Your task to perform on an android device: turn pop-ups on in chrome Image 0: 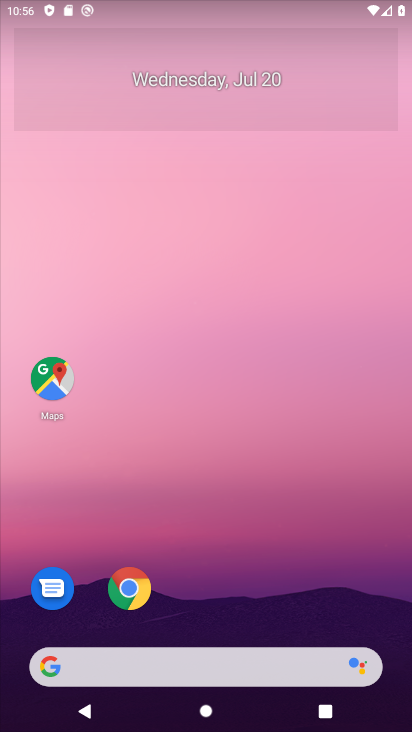
Step 0: drag from (219, 613) to (405, 610)
Your task to perform on an android device: turn pop-ups on in chrome Image 1: 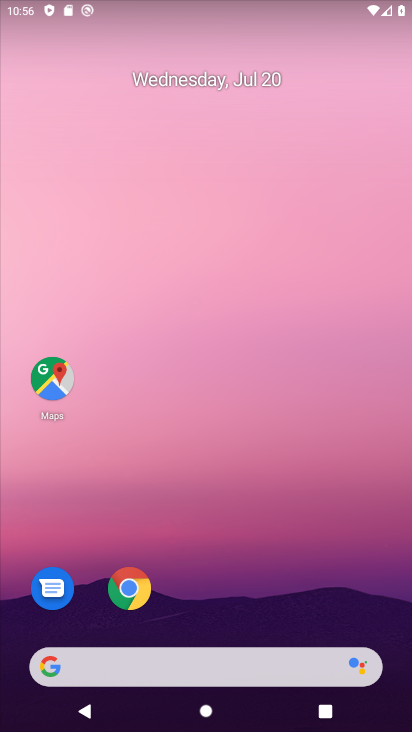
Step 1: drag from (246, 643) to (248, 88)
Your task to perform on an android device: turn pop-ups on in chrome Image 2: 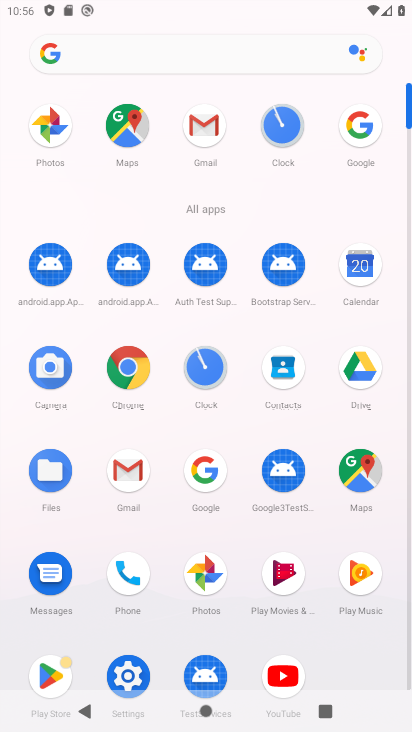
Step 2: click (129, 368)
Your task to perform on an android device: turn pop-ups on in chrome Image 3: 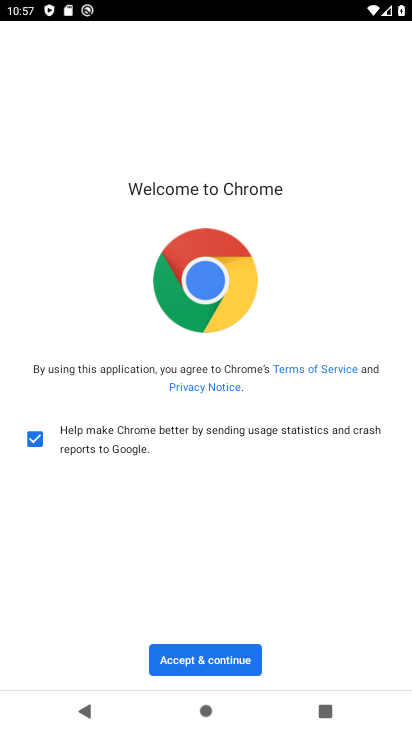
Step 3: click (183, 662)
Your task to perform on an android device: turn pop-ups on in chrome Image 4: 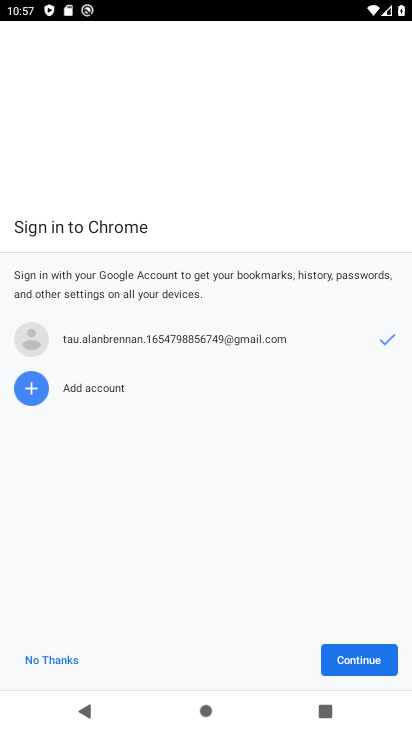
Step 4: click (30, 654)
Your task to perform on an android device: turn pop-ups on in chrome Image 5: 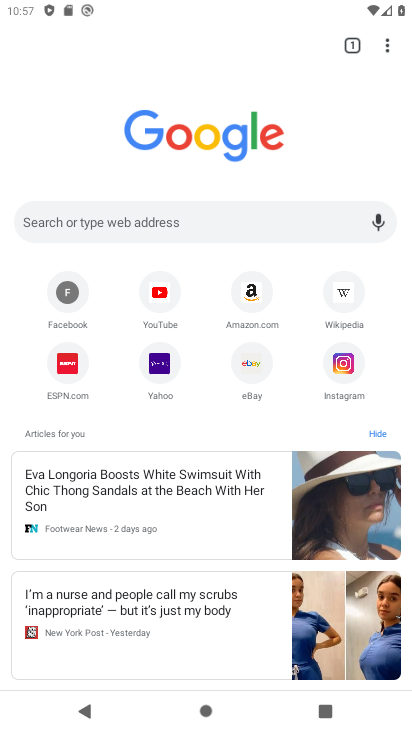
Step 5: drag from (392, 50) to (212, 390)
Your task to perform on an android device: turn pop-ups on in chrome Image 6: 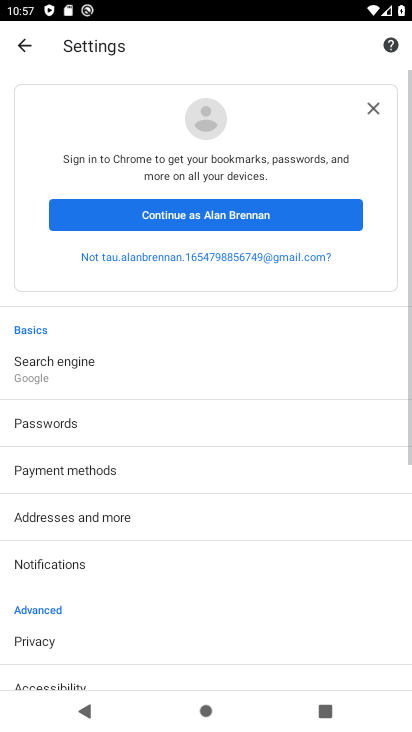
Step 6: drag from (91, 625) to (102, 330)
Your task to perform on an android device: turn pop-ups on in chrome Image 7: 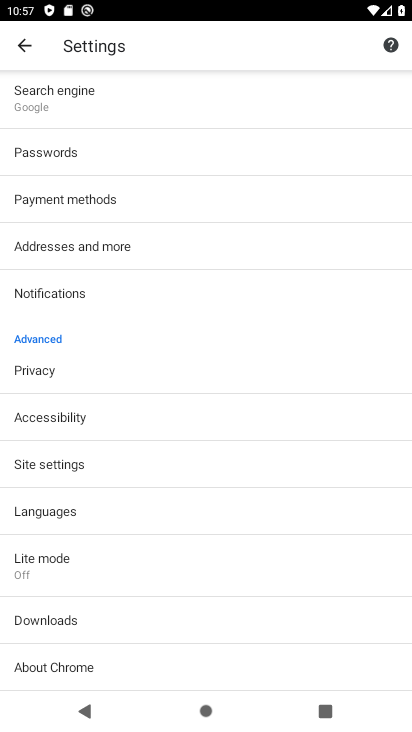
Step 7: click (47, 480)
Your task to perform on an android device: turn pop-ups on in chrome Image 8: 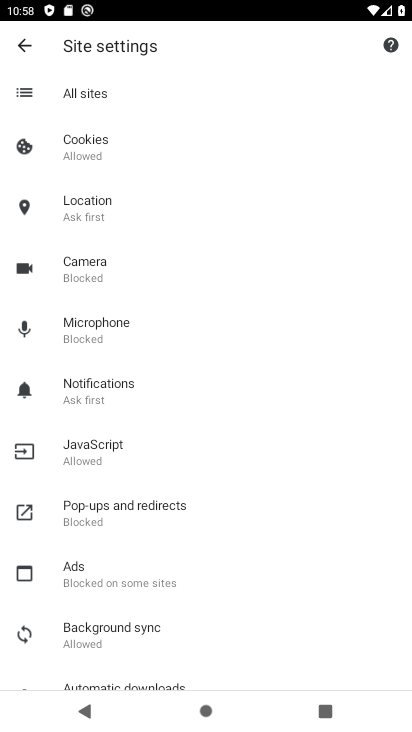
Step 8: click (157, 509)
Your task to perform on an android device: turn pop-ups on in chrome Image 9: 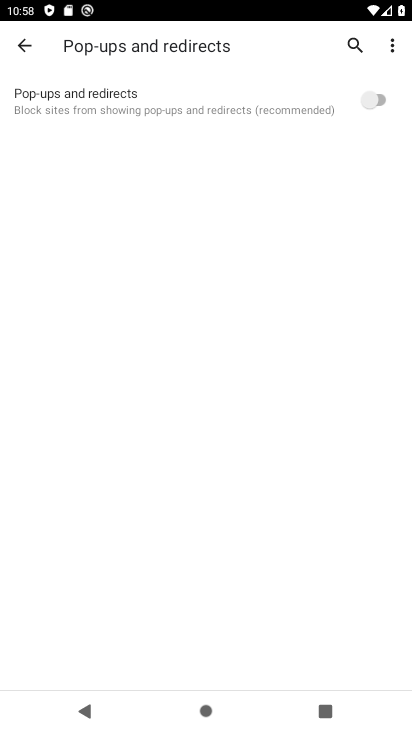
Step 9: click (377, 101)
Your task to perform on an android device: turn pop-ups on in chrome Image 10: 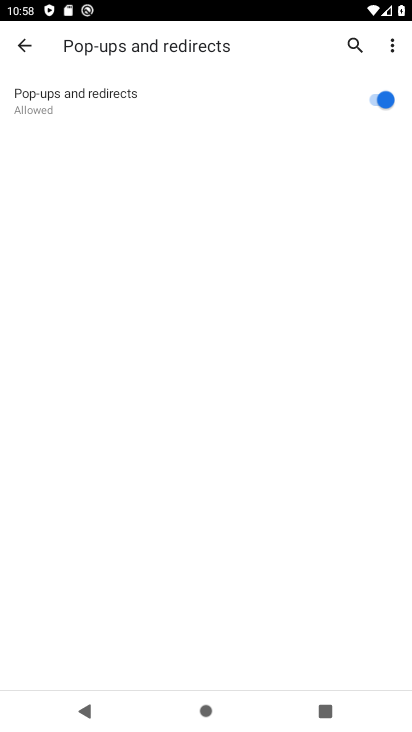
Step 10: task complete